Your task to perform on an android device: check android version Image 0: 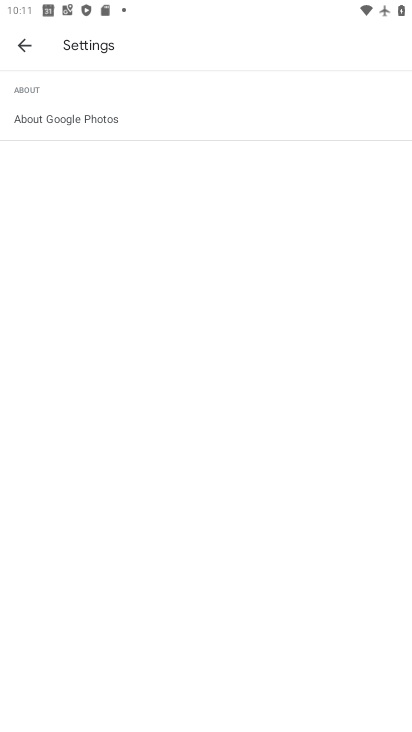
Step 0: press home button
Your task to perform on an android device: check android version Image 1: 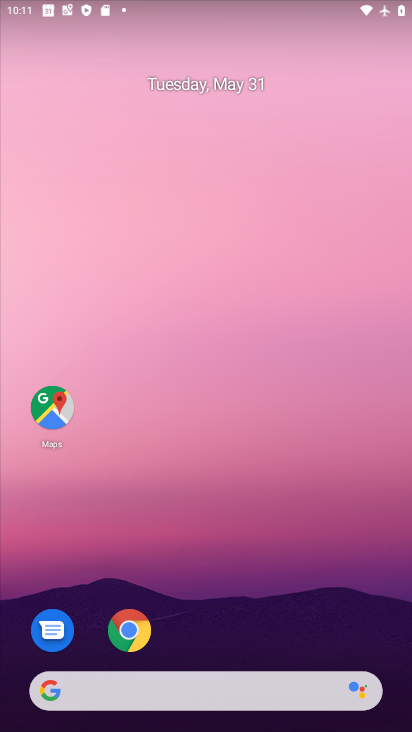
Step 1: drag from (229, 606) to (235, 222)
Your task to perform on an android device: check android version Image 2: 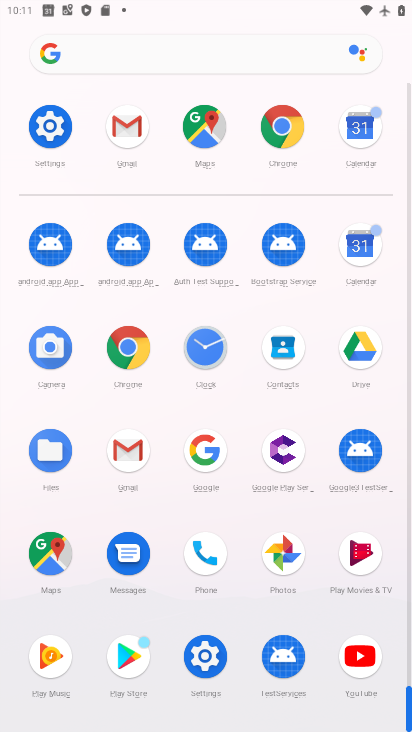
Step 2: click (61, 123)
Your task to perform on an android device: check android version Image 3: 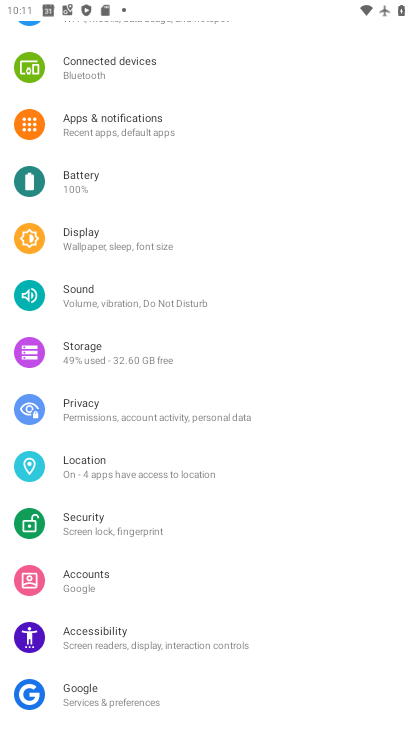
Step 3: drag from (189, 665) to (243, 388)
Your task to perform on an android device: check android version Image 4: 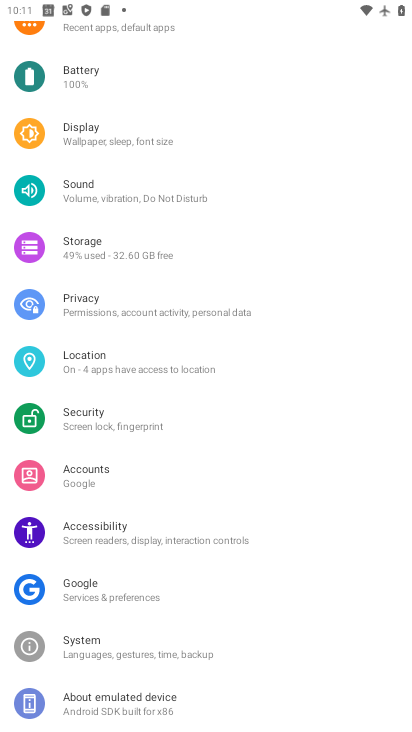
Step 4: click (116, 703)
Your task to perform on an android device: check android version Image 5: 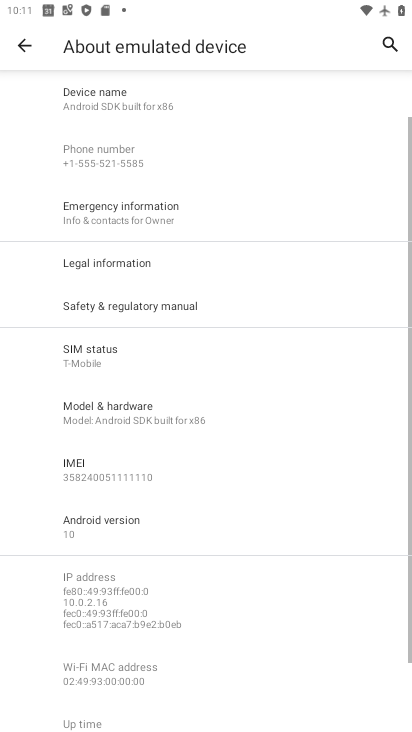
Step 5: click (158, 523)
Your task to perform on an android device: check android version Image 6: 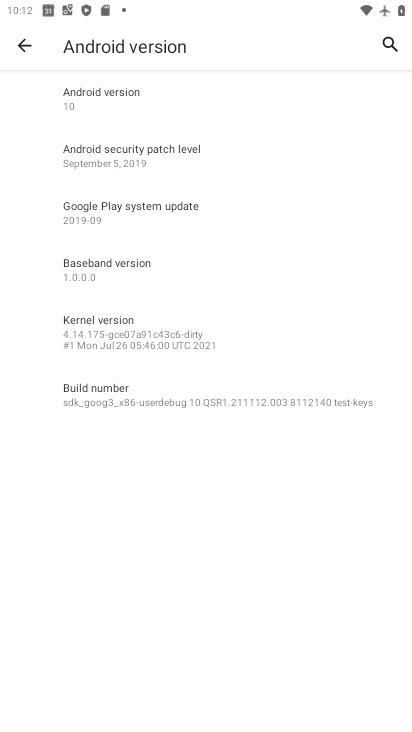
Step 6: task complete